Your task to perform on an android device: stop showing notifications on the lock screen Image 0: 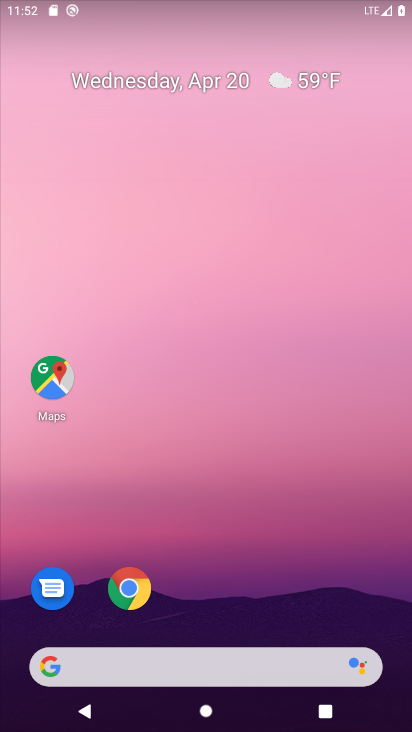
Step 0: drag from (231, 574) to (175, 45)
Your task to perform on an android device: stop showing notifications on the lock screen Image 1: 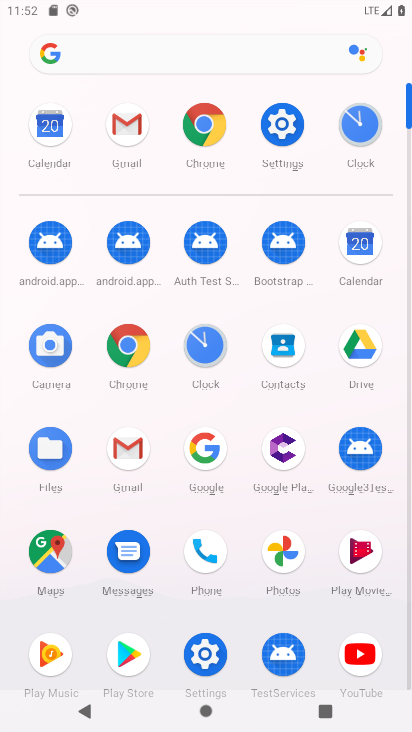
Step 1: click (278, 125)
Your task to perform on an android device: stop showing notifications on the lock screen Image 2: 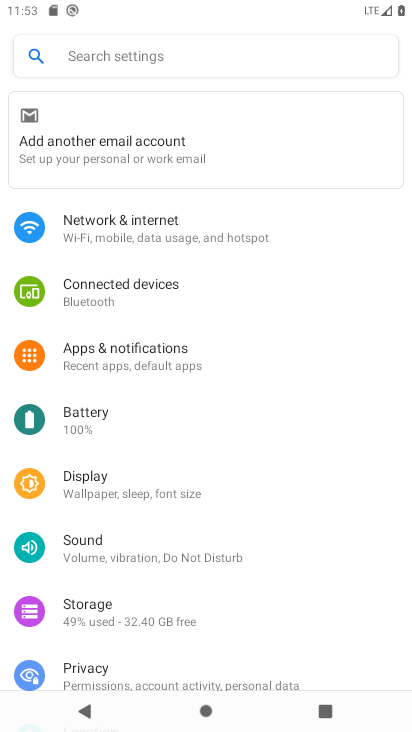
Step 2: click (130, 348)
Your task to perform on an android device: stop showing notifications on the lock screen Image 3: 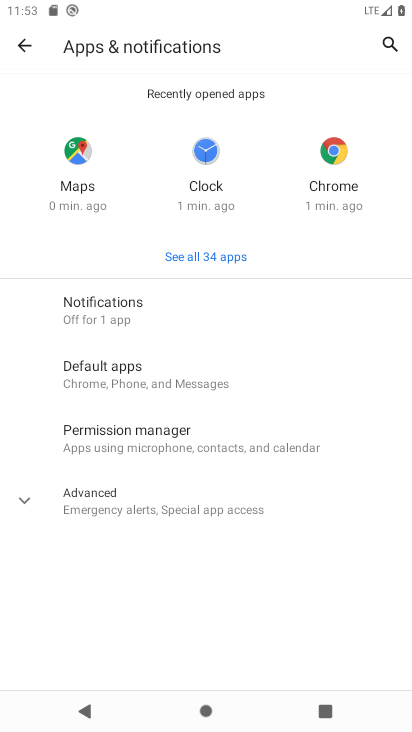
Step 3: click (98, 302)
Your task to perform on an android device: stop showing notifications on the lock screen Image 4: 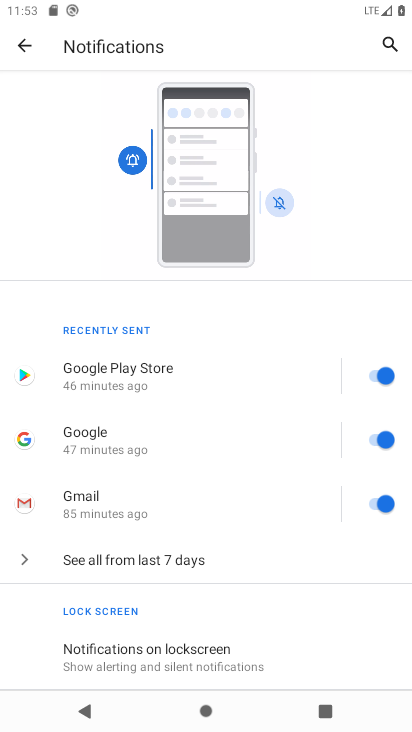
Step 4: drag from (193, 443) to (199, 382)
Your task to perform on an android device: stop showing notifications on the lock screen Image 5: 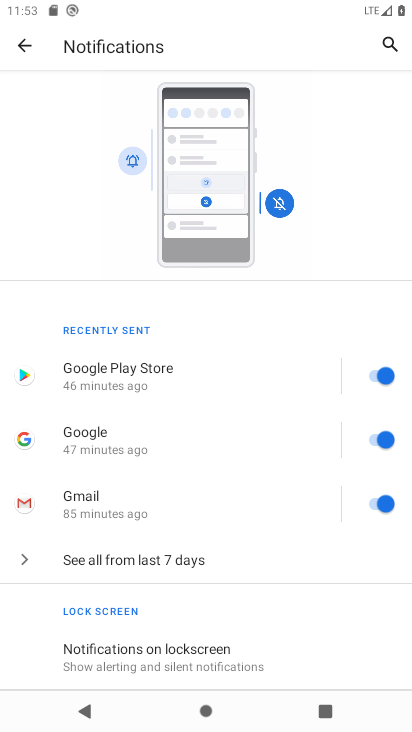
Step 5: click (141, 650)
Your task to perform on an android device: stop showing notifications on the lock screen Image 6: 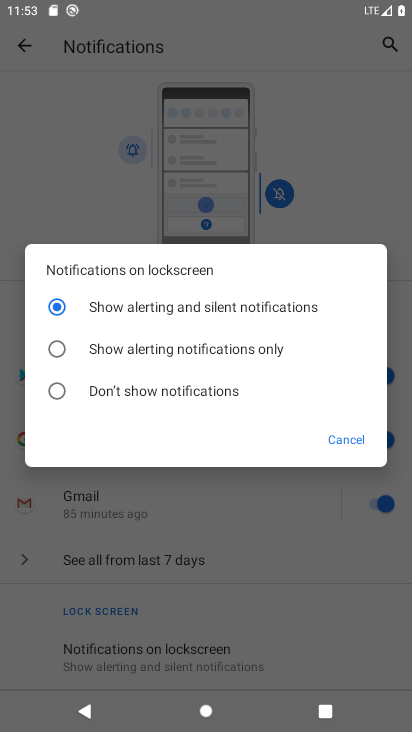
Step 6: click (55, 393)
Your task to perform on an android device: stop showing notifications on the lock screen Image 7: 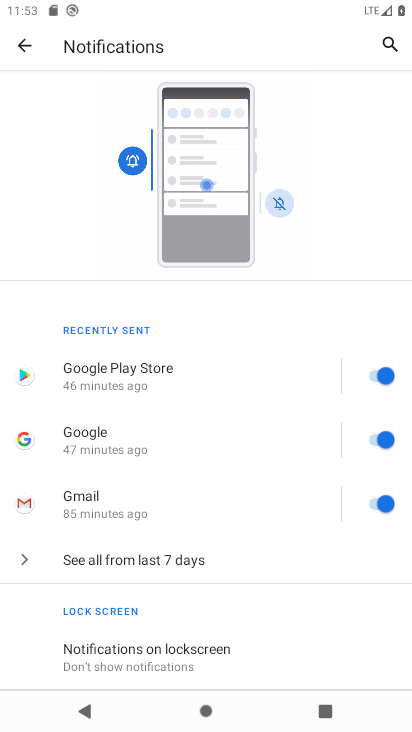
Step 7: task complete